Your task to perform on an android device: Open calendar and show me the third week of next month Image 0: 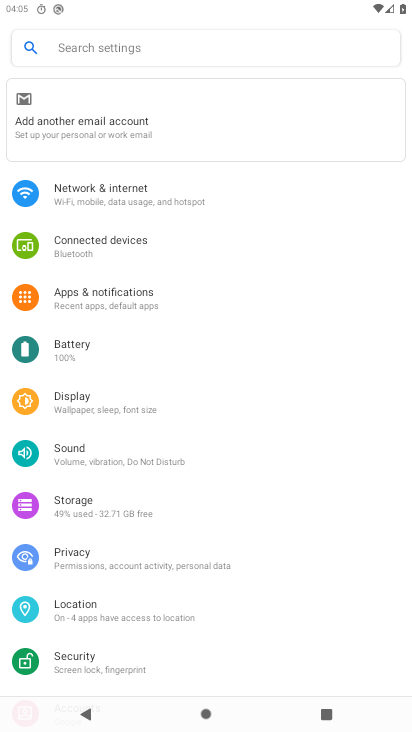
Step 0: press home button
Your task to perform on an android device: Open calendar and show me the third week of next month Image 1: 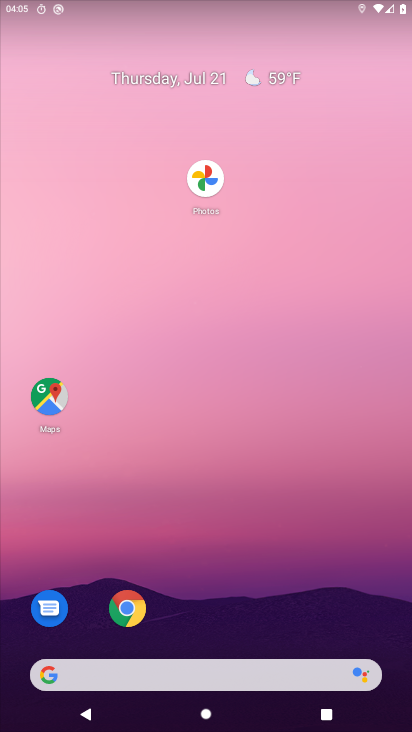
Step 1: drag from (222, 633) to (276, 9)
Your task to perform on an android device: Open calendar and show me the third week of next month Image 2: 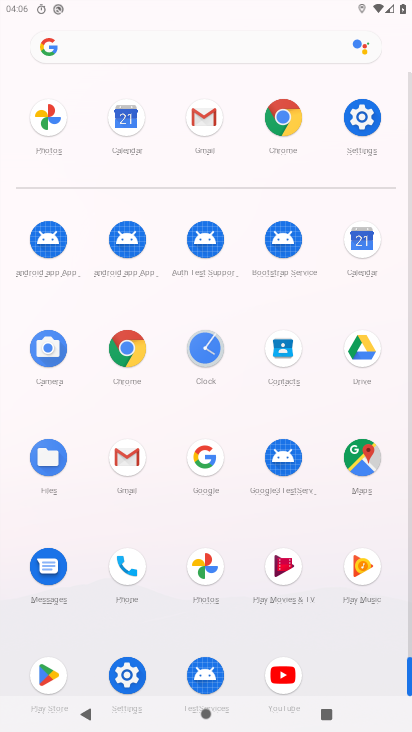
Step 2: click (356, 236)
Your task to perform on an android device: Open calendar and show me the third week of next month Image 3: 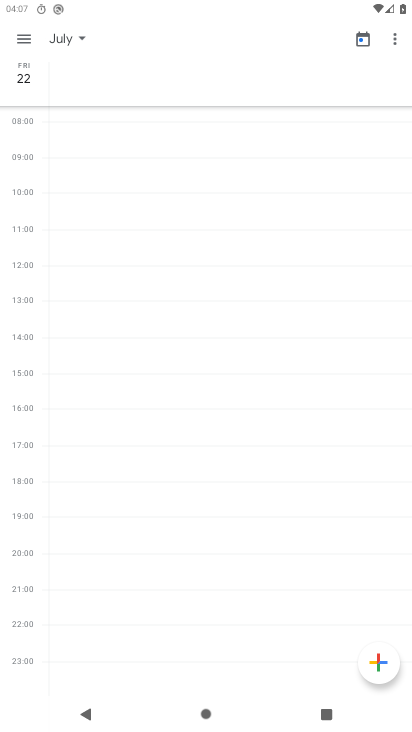
Step 3: click (75, 39)
Your task to perform on an android device: Open calendar and show me the third week of next month Image 4: 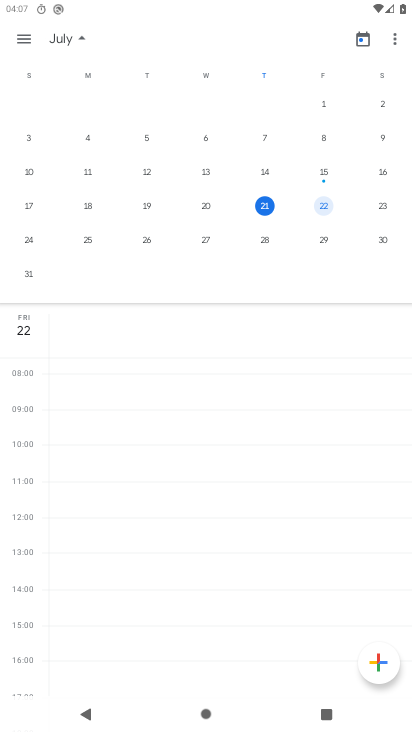
Step 4: click (75, 38)
Your task to perform on an android device: Open calendar and show me the third week of next month Image 5: 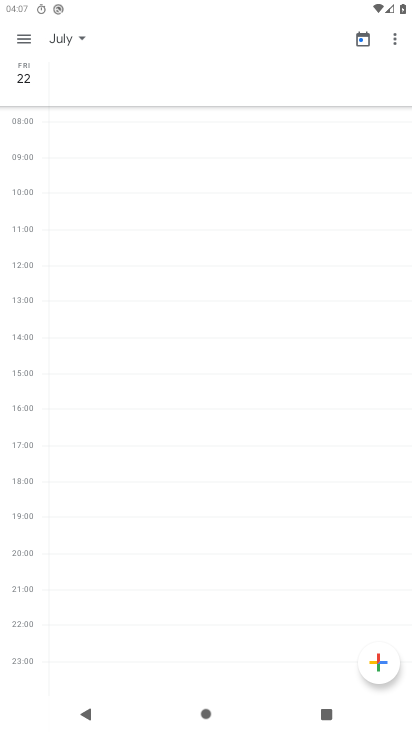
Step 5: click (81, 37)
Your task to perform on an android device: Open calendar and show me the third week of next month Image 6: 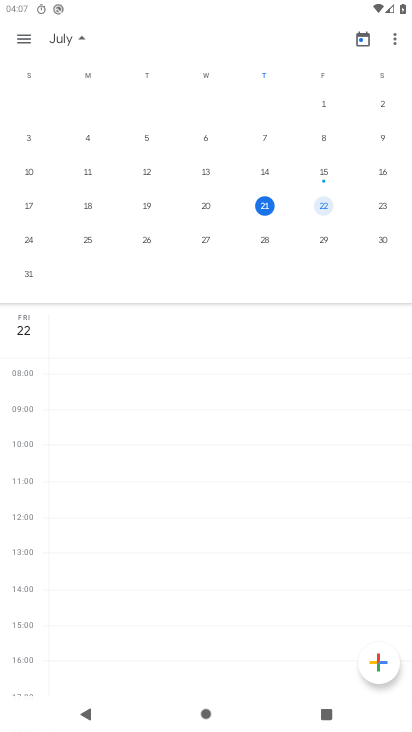
Step 6: drag from (362, 164) to (0, 195)
Your task to perform on an android device: Open calendar and show me the third week of next month Image 7: 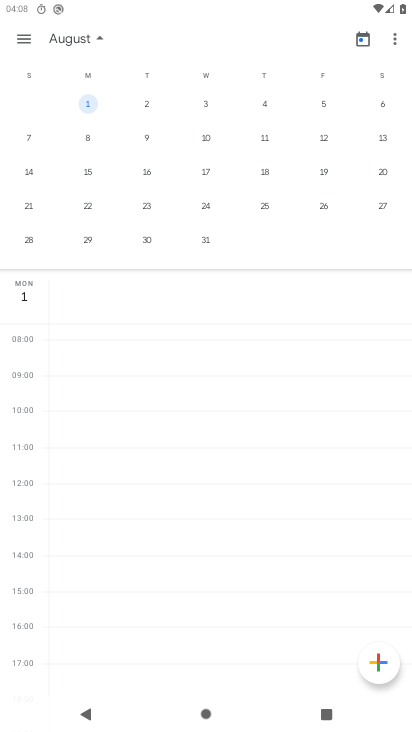
Step 7: click (31, 173)
Your task to perform on an android device: Open calendar and show me the third week of next month Image 8: 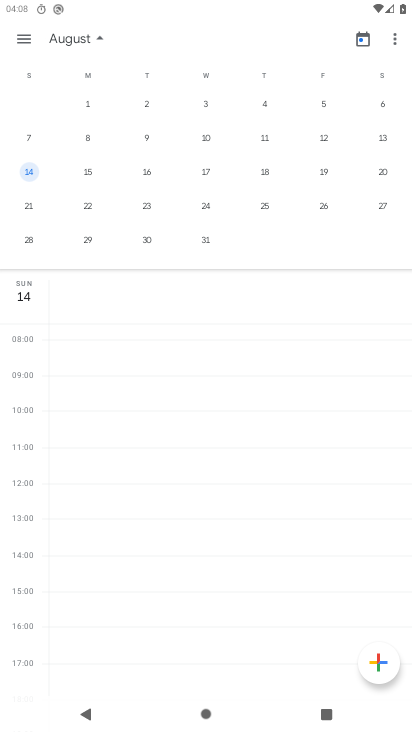
Step 8: click (14, 37)
Your task to perform on an android device: Open calendar and show me the third week of next month Image 9: 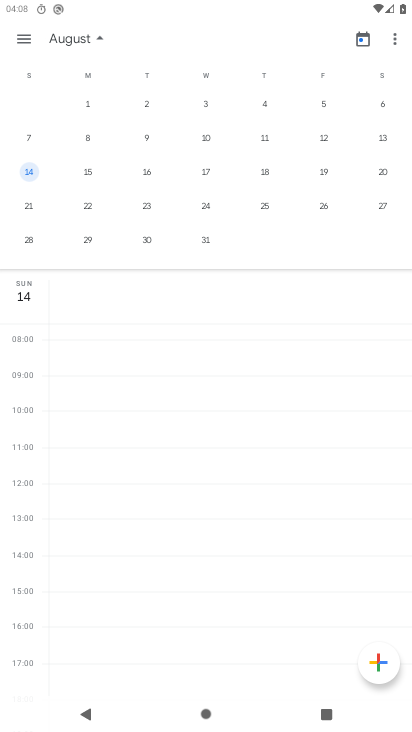
Step 9: click (20, 34)
Your task to perform on an android device: Open calendar and show me the third week of next month Image 10: 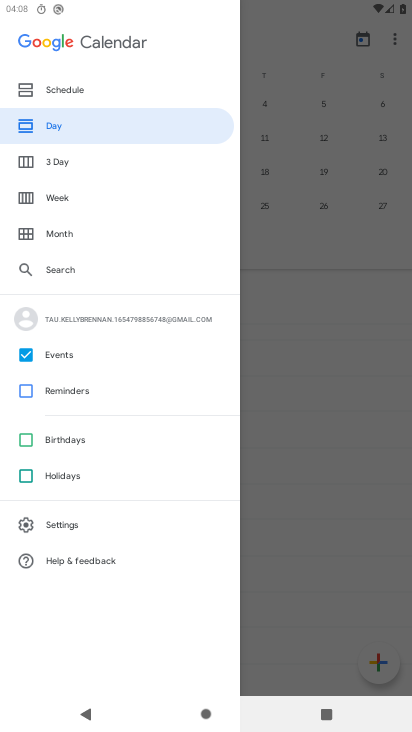
Step 10: click (62, 190)
Your task to perform on an android device: Open calendar and show me the third week of next month Image 11: 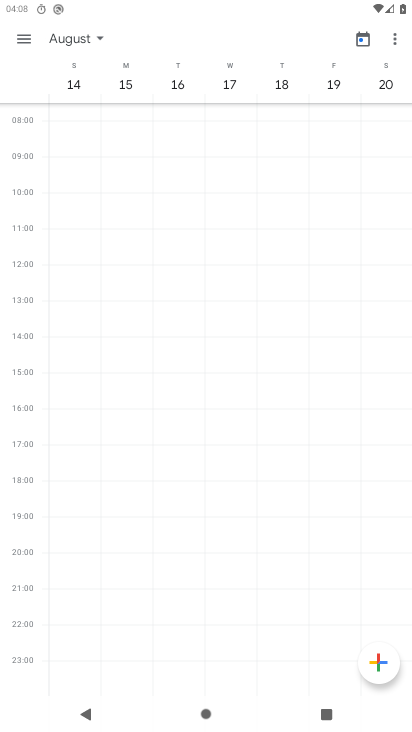
Step 11: task complete